Your task to perform on an android device: Show me productivity apps on the Play Store Image 0: 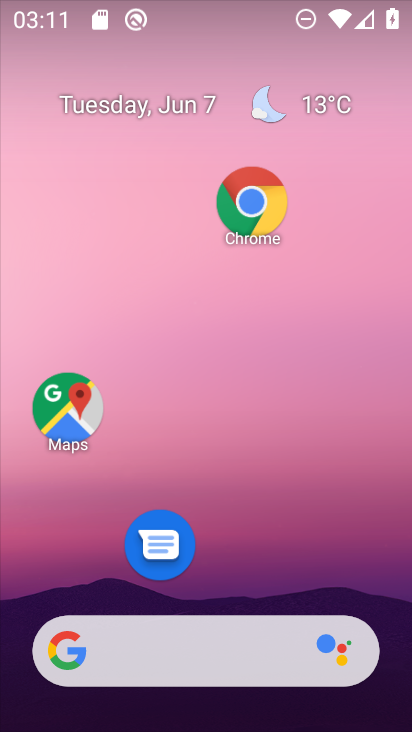
Step 0: drag from (282, 604) to (313, 268)
Your task to perform on an android device: Show me productivity apps on the Play Store Image 1: 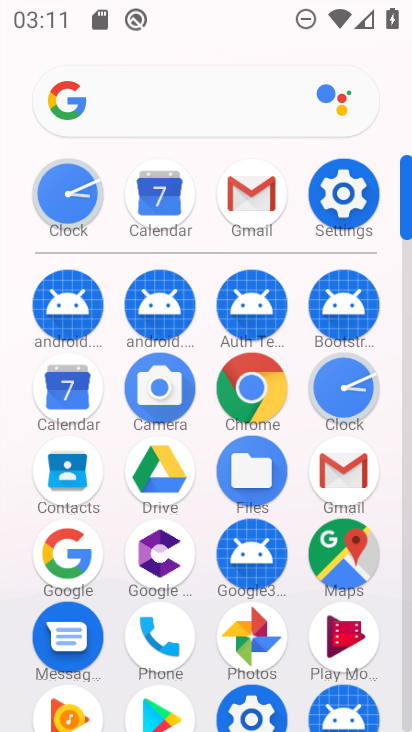
Step 1: drag from (205, 612) to (216, 365)
Your task to perform on an android device: Show me productivity apps on the Play Store Image 2: 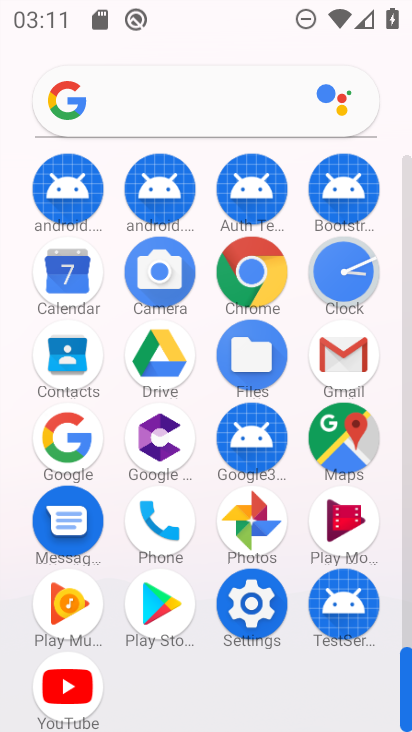
Step 2: click (179, 595)
Your task to perform on an android device: Show me productivity apps on the Play Store Image 3: 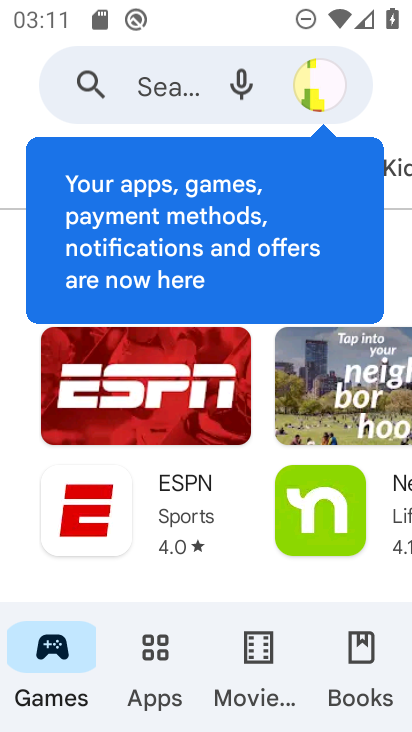
Step 3: click (157, 639)
Your task to perform on an android device: Show me productivity apps on the Play Store Image 4: 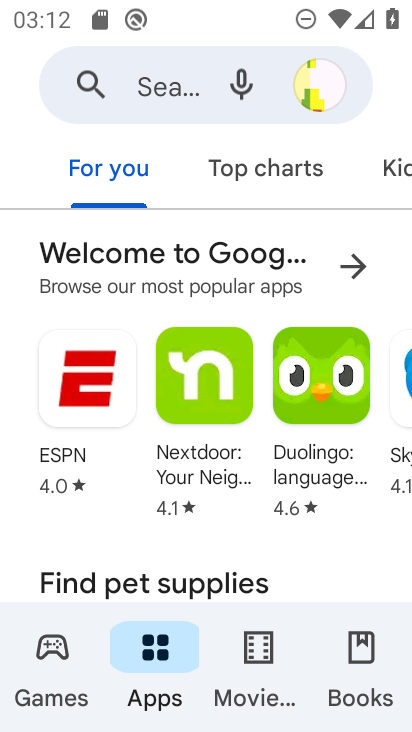
Step 4: task complete